Your task to perform on an android device: Open Google Chrome and click the shortcut for Amazon.com Image 0: 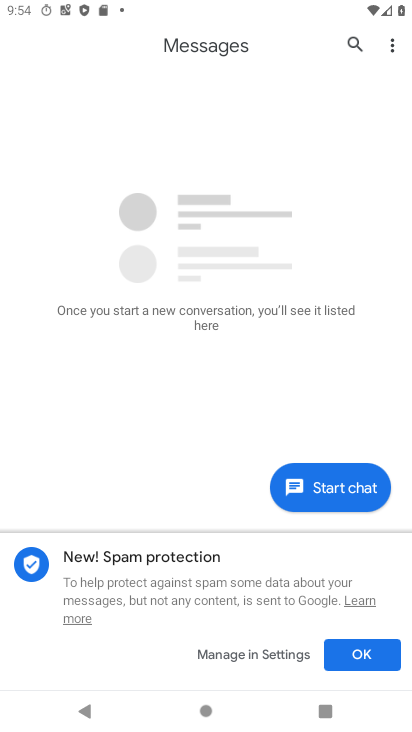
Step 0: press back button
Your task to perform on an android device: Open Google Chrome and click the shortcut for Amazon.com Image 1: 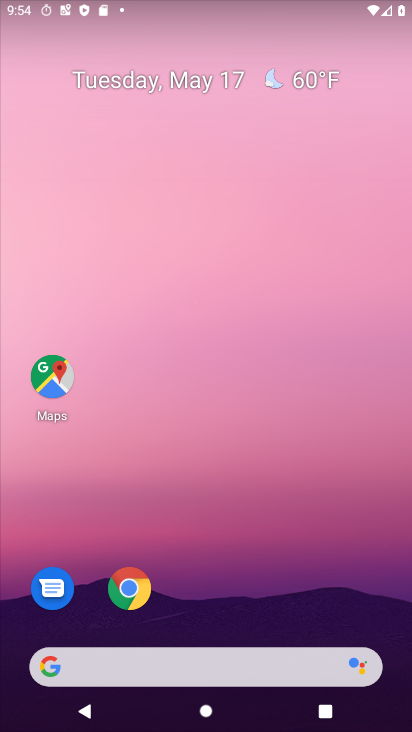
Step 1: click (188, 318)
Your task to perform on an android device: Open Google Chrome and click the shortcut for Amazon.com Image 2: 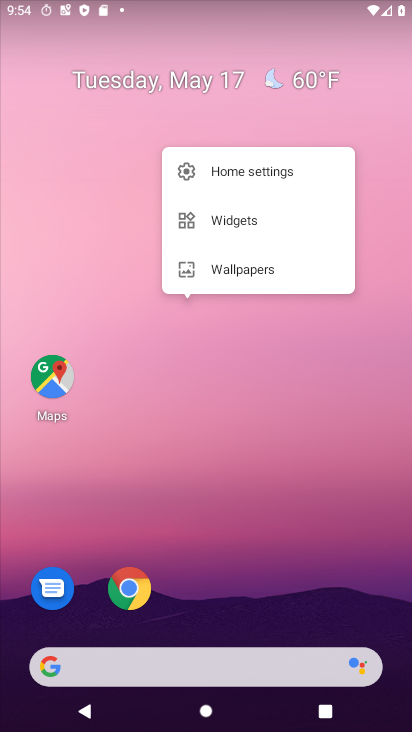
Step 2: drag from (161, 517) to (78, 138)
Your task to perform on an android device: Open Google Chrome and click the shortcut for Amazon.com Image 3: 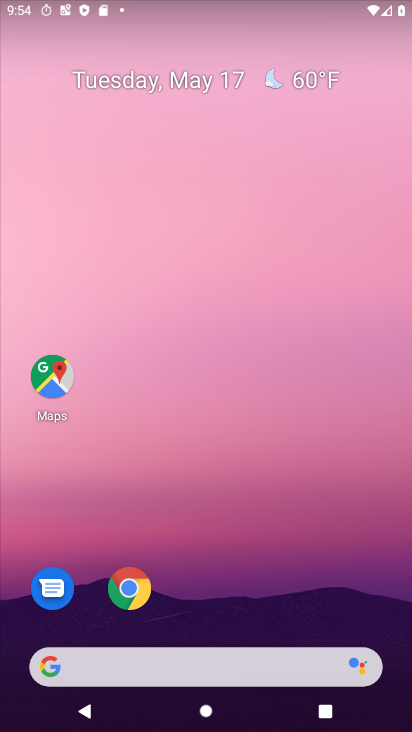
Step 3: drag from (190, 482) to (150, 8)
Your task to perform on an android device: Open Google Chrome and click the shortcut for Amazon.com Image 4: 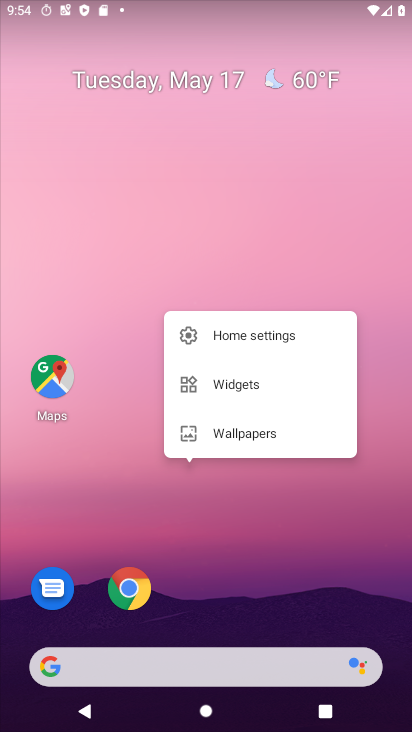
Step 4: click (109, 328)
Your task to perform on an android device: Open Google Chrome and click the shortcut for Amazon.com Image 5: 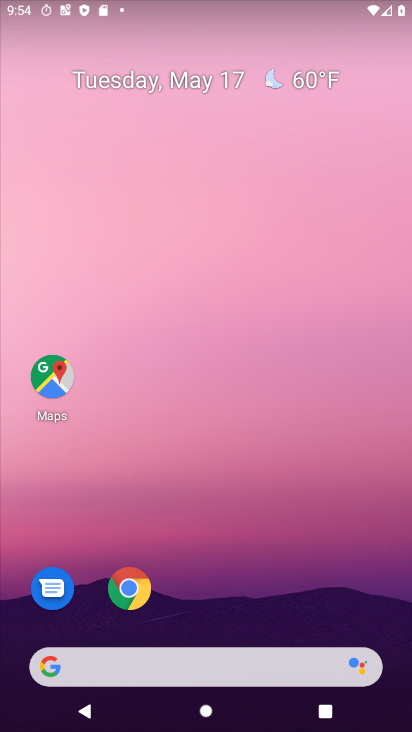
Step 5: click (219, 589)
Your task to perform on an android device: Open Google Chrome and click the shortcut for Amazon.com Image 6: 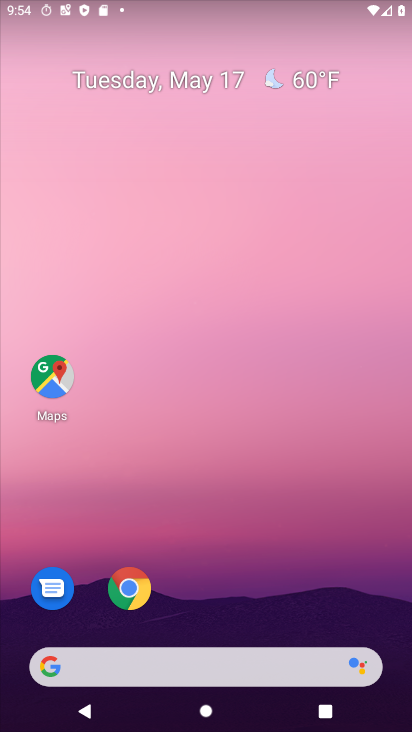
Step 6: click (219, 589)
Your task to perform on an android device: Open Google Chrome and click the shortcut for Amazon.com Image 7: 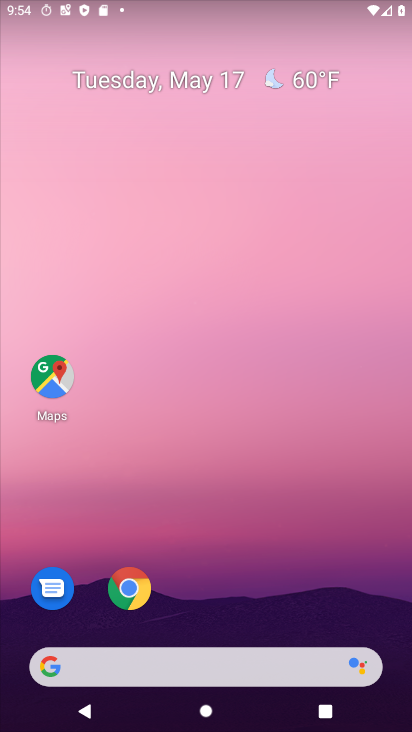
Step 7: drag from (303, 659) to (148, 109)
Your task to perform on an android device: Open Google Chrome and click the shortcut for Amazon.com Image 8: 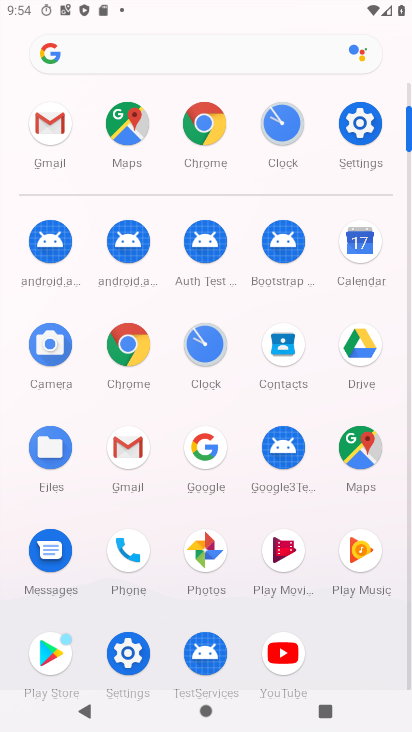
Step 8: click (132, 338)
Your task to perform on an android device: Open Google Chrome and click the shortcut for Amazon.com Image 9: 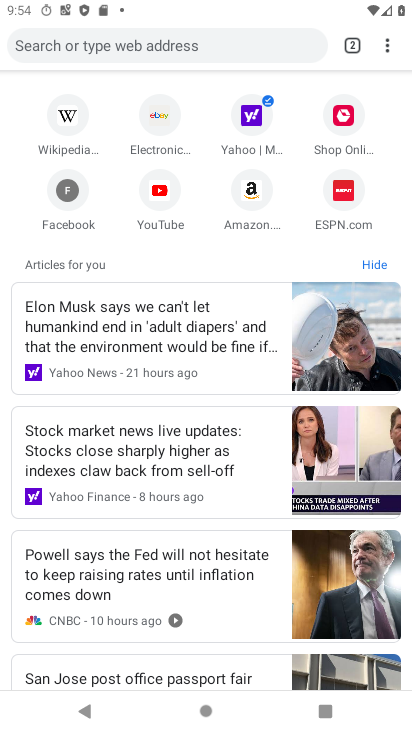
Step 9: click (246, 190)
Your task to perform on an android device: Open Google Chrome and click the shortcut for Amazon.com Image 10: 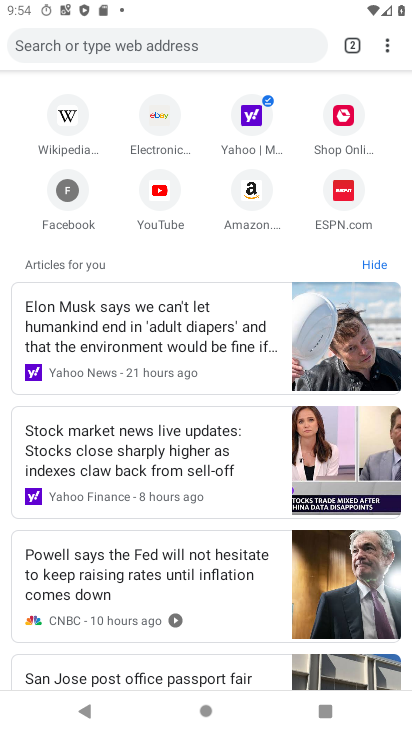
Step 10: click (247, 190)
Your task to perform on an android device: Open Google Chrome and click the shortcut for Amazon.com Image 11: 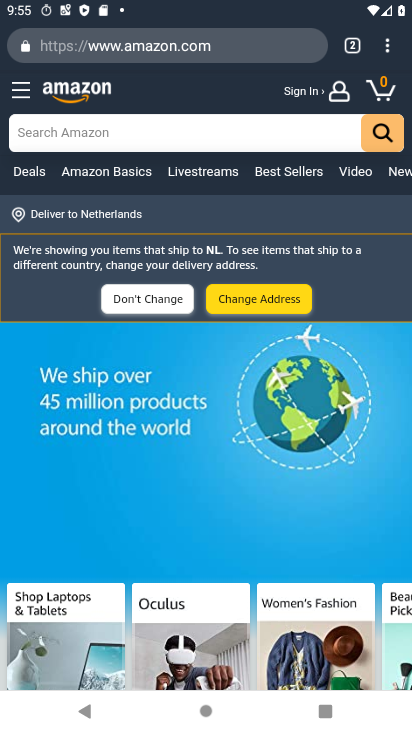
Step 11: task complete